Your task to perform on an android device: Show the shopping cart on walmart. Search for corsair k70 on walmart, select the first entry, add it to the cart, then select checkout. Image 0: 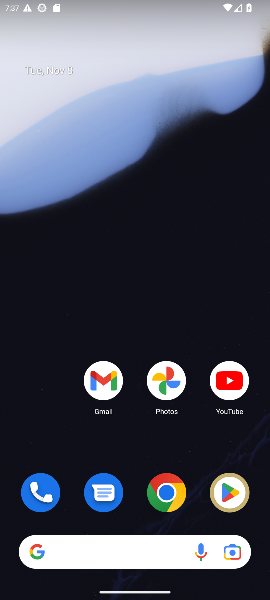
Step 0: click (165, 495)
Your task to perform on an android device: Show the shopping cart on walmart. Search for corsair k70 on walmart, select the first entry, add it to the cart, then select checkout. Image 1: 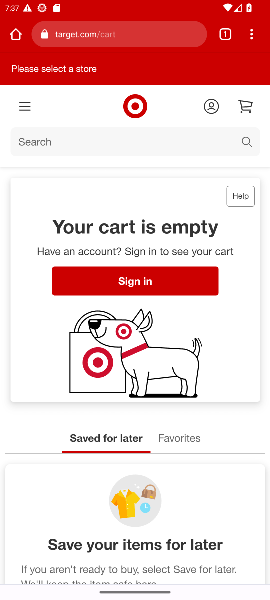
Step 1: click (80, 38)
Your task to perform on an android device: Show the shopping cart on walmart. Search for corsair k70 on walmart, select the first entry, add it to the cart, then select checkout. Image 2: 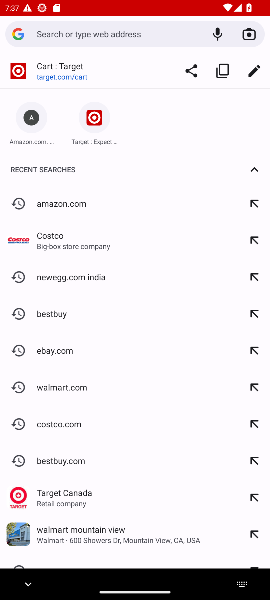
Step 2: type "walmart"
Your task to perform on an android device: Show the shopping cart on walmart. Search for corsair k70 on walmart, select the first entry, add it to the cart, then select checkout. Image 3: 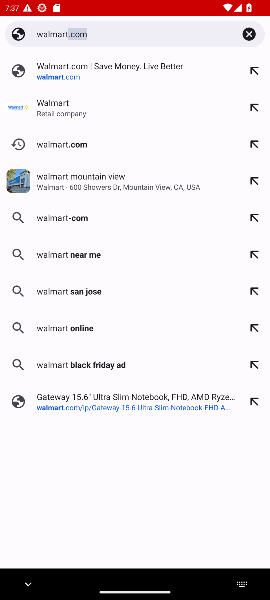
Step 3: press enter
Your task to perform on an android device: Show the shopping cart on walmart. Search for corsair k70 on walmart, select the first entry, add it to the cart, then select checkout. Image 4: 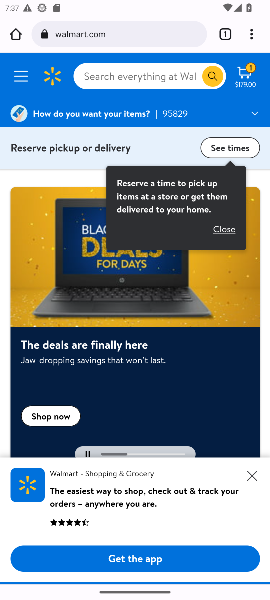
Step 4: click (239, 82)
Your task to perform on an android device: Show the shopping cart on walmart. Search for corsair k70 on walmart, select the first entry, add it to the cart, then select checkout. Image 5: 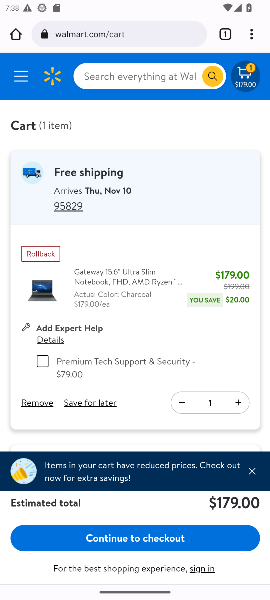
Step 5: click (121, 75)
Your task to perform on an android device: Show the shopping cart on walmart. Search for corsair k70 on walmart, select the first entry, add it to the cart, then select checkout. Image 6: 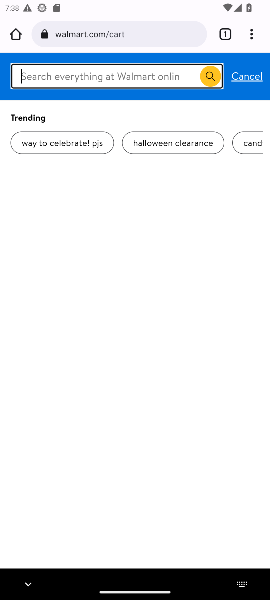
Step 6: type "corsair k70"
Your task to perform on an android device: Show the shopping cart on walmart. Search for corsair k70 on walmart, select the first entry, add it to the cart, then select checkout. Image 7: 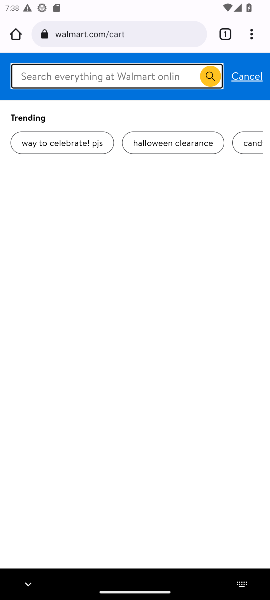
Step 7: press enter
Your task to perform on an android device: Show the shopping cart on walmart. Search for corsair k70 on walmart, select the first entry, add it to the cart, then select checkout. Image 8: 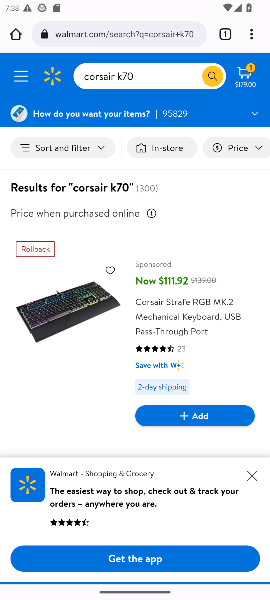
Step 8: click (187, 421)
Your task to perform on an android device: Show the shopping cart on walmart. Search for corsair k70 on walmart, select the first entry, add it to the cart, then select checkout. Image 9: 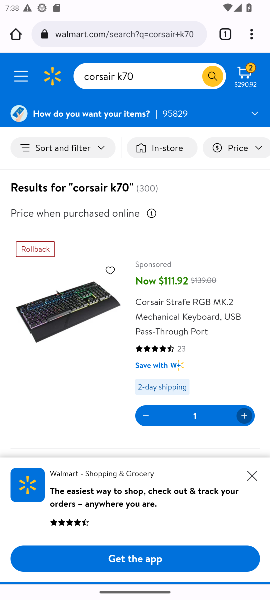
Step 9: click (245, 84)
Your task to perform on an android device: Show the shopping cart on walmart. Search for corsair k70 on walmart, select the first entry, add it to the cart, then select checkout. Image 10: 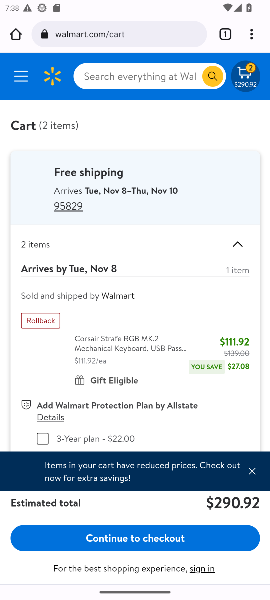
Step 10: click (125, 540)
Your task to perform on an android device: Show the shopping cart on walmart. Search for corsair k70 on walmart, select the first entry, add it to the cart, then select checkout. Image 11: 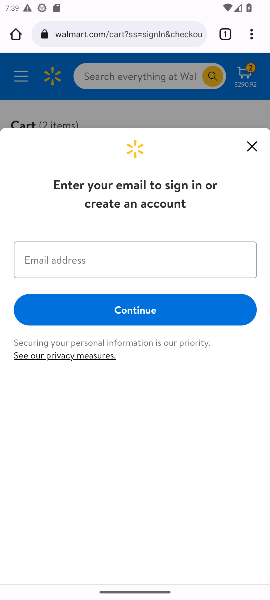
Step 11: task complete